Your task to perform on an android device: find which apps use the phone's location Image 0: 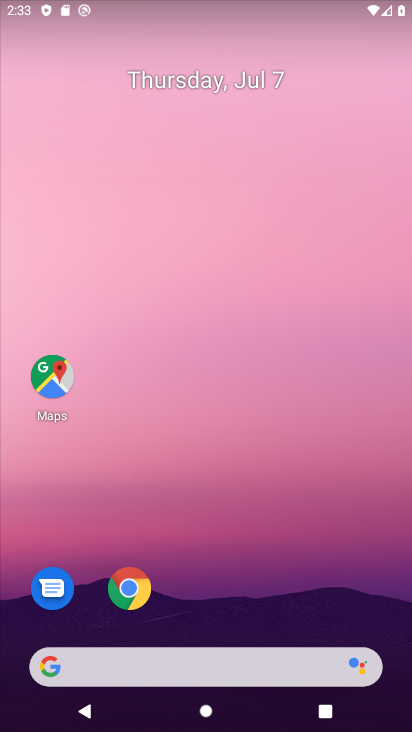
Step 0: drag from (330, 538) to (377, 185)
Your task to perform on an android device: find which apps use the phone's location Image 1: 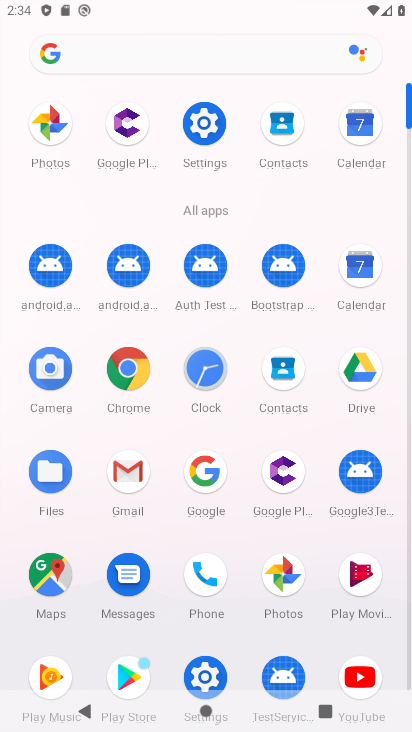
Step 1: click (205, 145)
Your task to perform on an android device: find which apps use the phone's location Image 2: 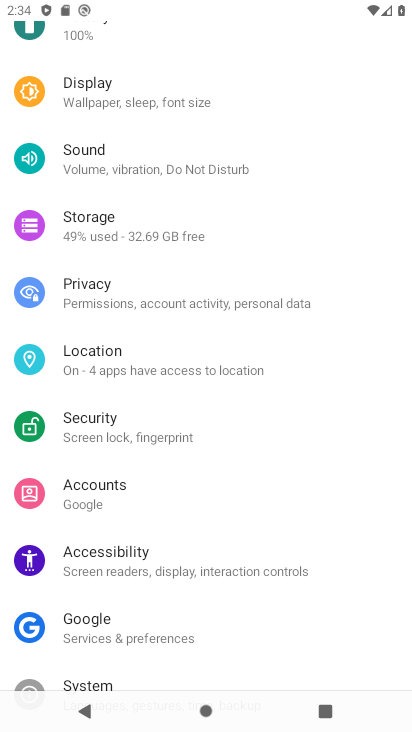
Step 2: click (156, 362)
Your task to perform on an android device: find which apps use the phone's location Image 3: 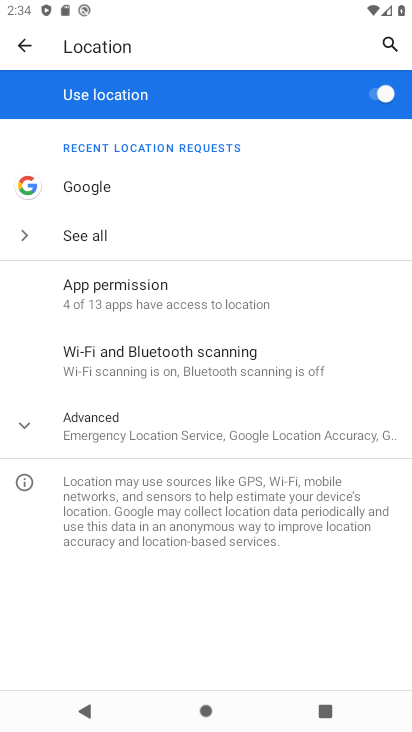
Step 3: click (167, 421)
Your task to perform on an android device: find which apps use the phone's location Image 4: 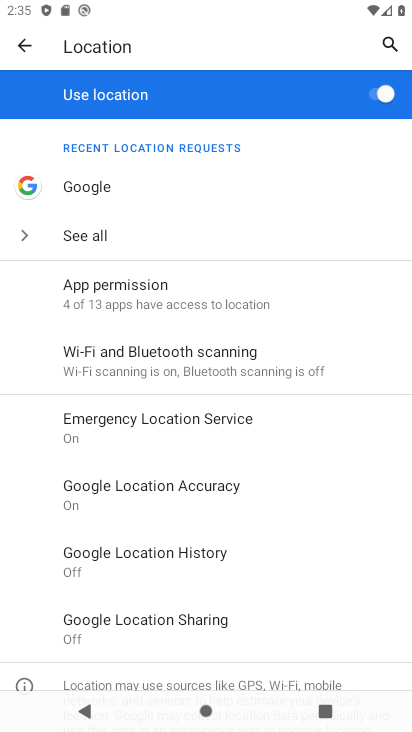
Step 4: click (201, 309)
Your task to perform on an android device: find which apps use the phone's location Image 5: 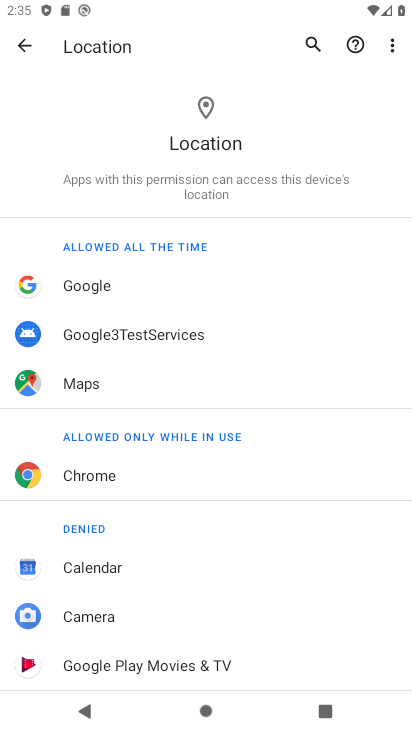
Step 5: click (201, 309)
Your task to perform on an android device: find which apps use the phone's location Image 6: 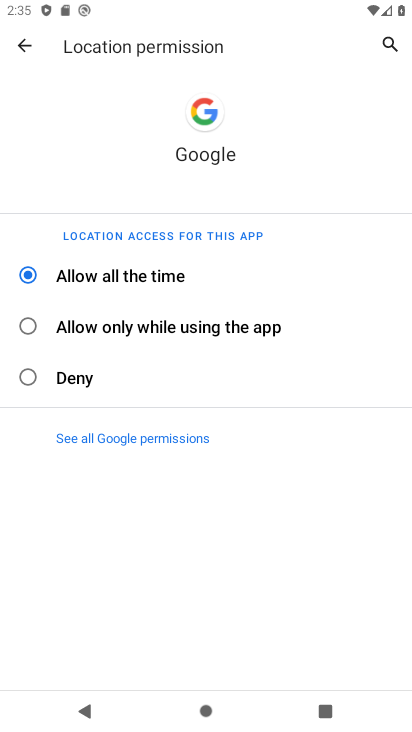
Step 6: task complete